Your task to perform on an android device: find snoozed emails in the gmail app Image 0: 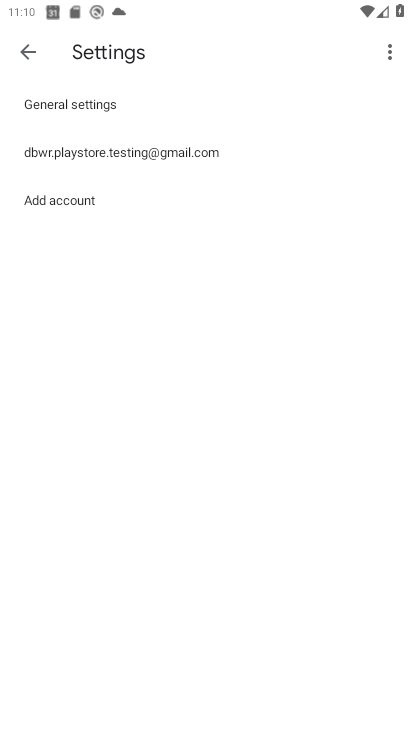
Step 0: click (35, 59)
Your task to perform on an android device: find snoozed emails in the gmail app Image 1: 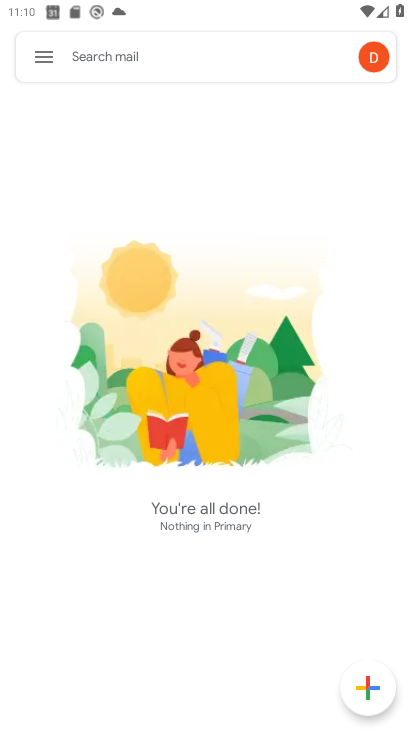
Step 1: press back button
Your task to perform on an android device: find snoozed emails in the gmail app Image 2: 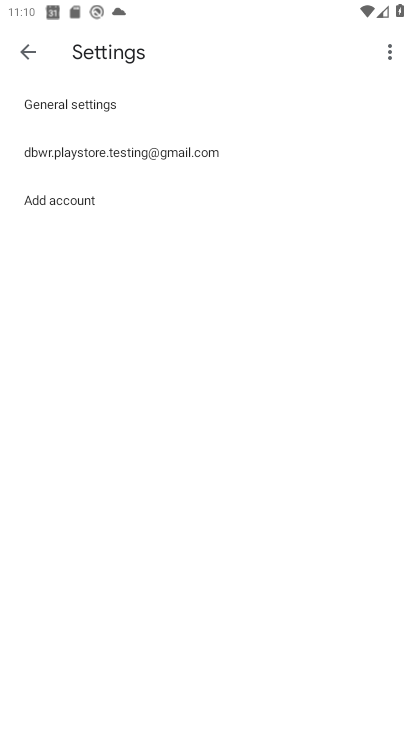
Step 2: click (16, 55)
Your task to perform on an android device: find snoozed emails in the gmail app Image 3: 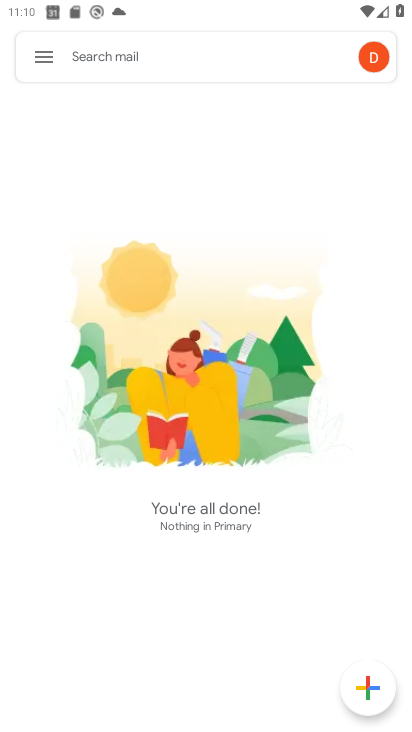
Step 3: click (38, 57)
Your task to perform on an android device: find snoozed emails in the gmail app Image 4: 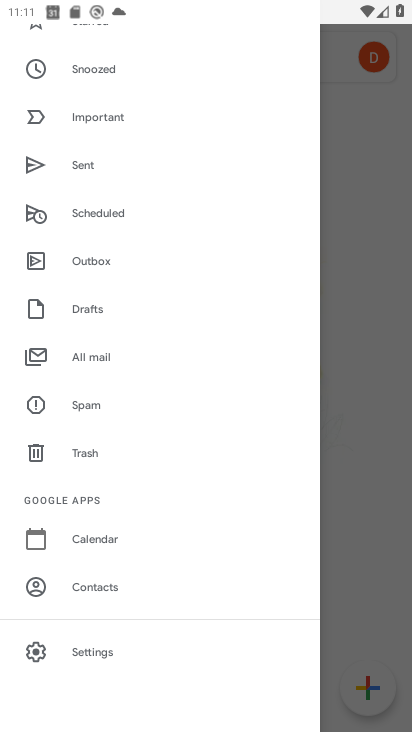
Step 4: click (99, 64)
Your task to perform on an android device: find snoozed emails in the gmail app Image 5: 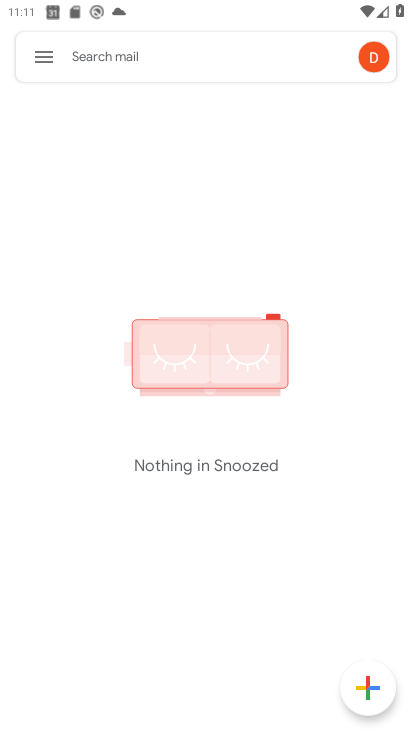
Step 5: task complete